Your task to perform on an android device: move a message to another label in the gmail app Image 0: 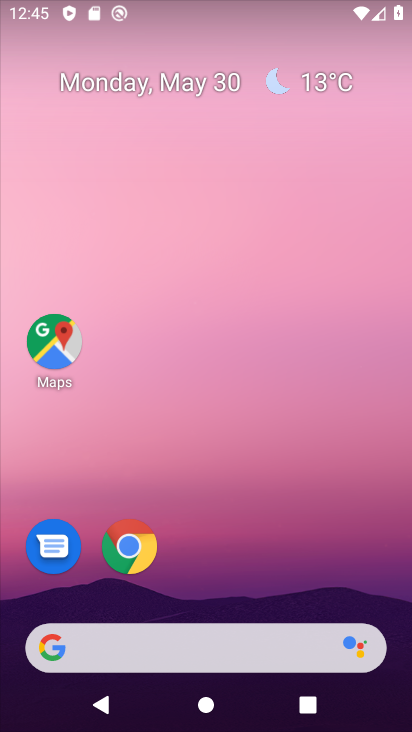
Step 0: press home button
Your task to perform on an android device: move a message to another label in the gmail app Image 1: 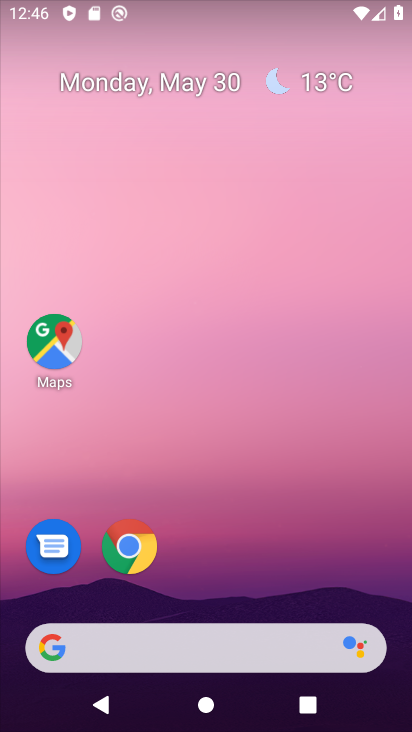
Step 1: drag from (216, 601) to (298, 176)
Your task to perform on an android device: move a message to another label in the gmail app Image 2: 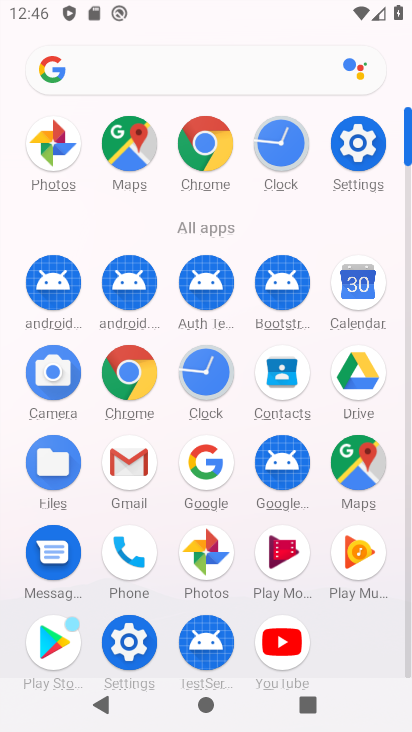
Step 2: click (126, 474)
Your task to perform on an android device: move a message to another label in the gmail app Image 3: 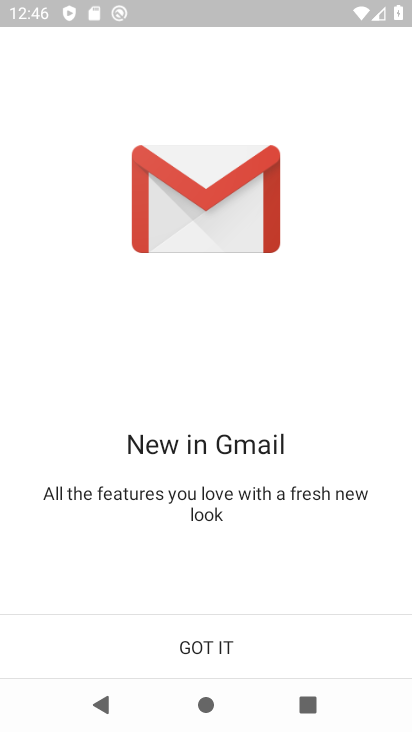
Step 3: click (165, 637)
Your task to perform on an android device: move a message to another label in the gmail app Image 4: 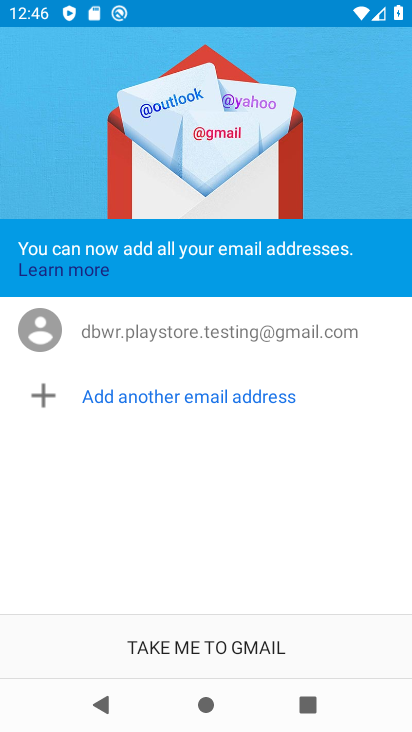
Step 4: click (214, 638)
Your task to perform on an android device: move a message to another label in the gmail app Image 5: 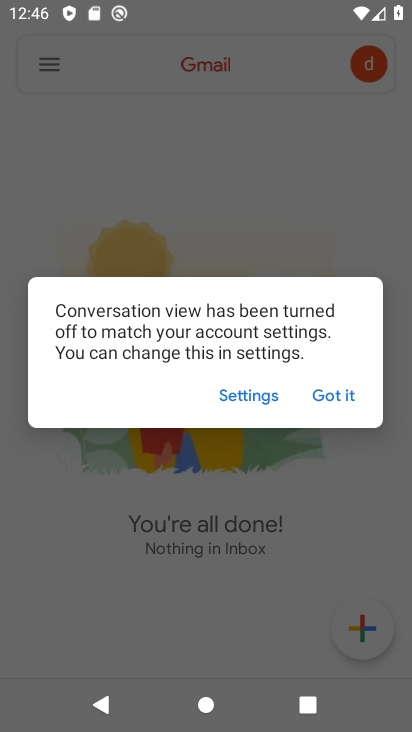
Step 5: click (337, 396)
Your task to perform on an android device: move a message to another label in the gmail app Image 6: 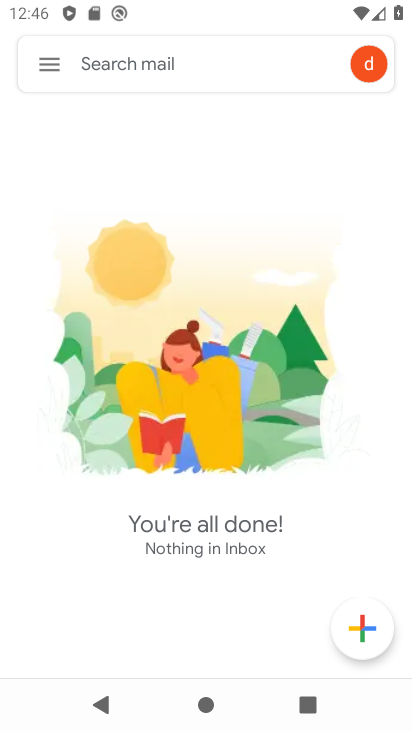
Step 6: click (52, 63)
Your task to perform on an android device: move a message to another label in the gmail app Image 7: 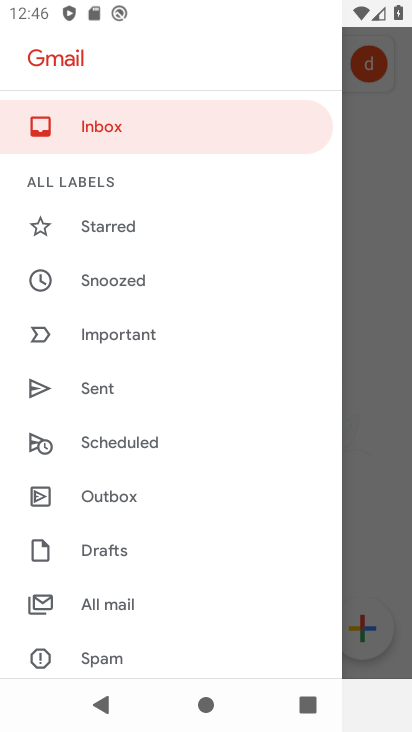
Step 7: click (120, 608)
Your task to perform on an android device: move a message to another label in the gmail app Image 8: 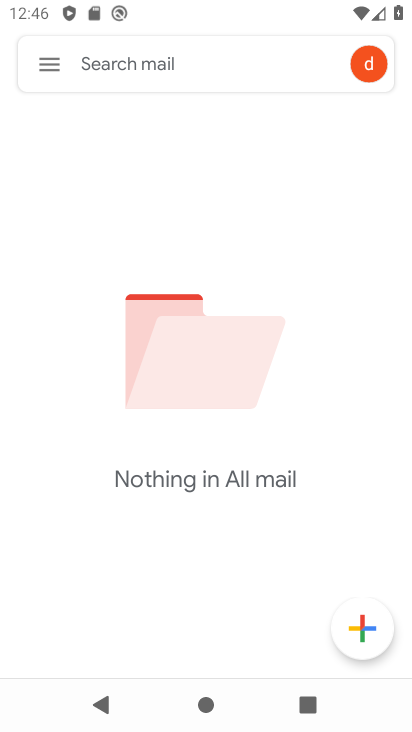
Step 8: task complete